Your task to perform on an android device: Open Google Image 0: 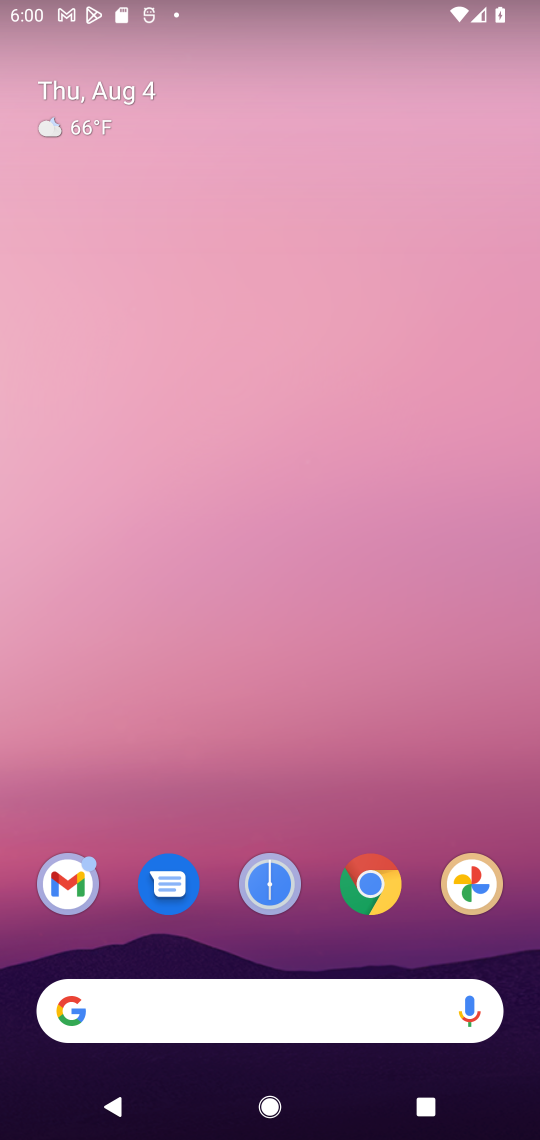
Step 0: click (369, 909)
Your task to perform on an android device: Open Google Image 1: 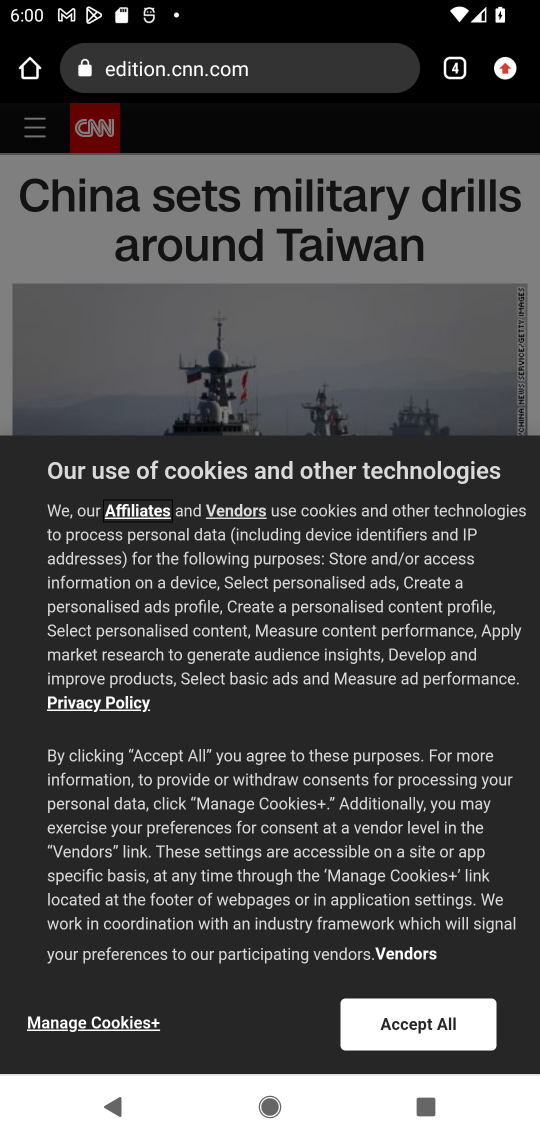
Step 1: click (278, 83)
Your task to perform on an android device: Open Google Image 2: 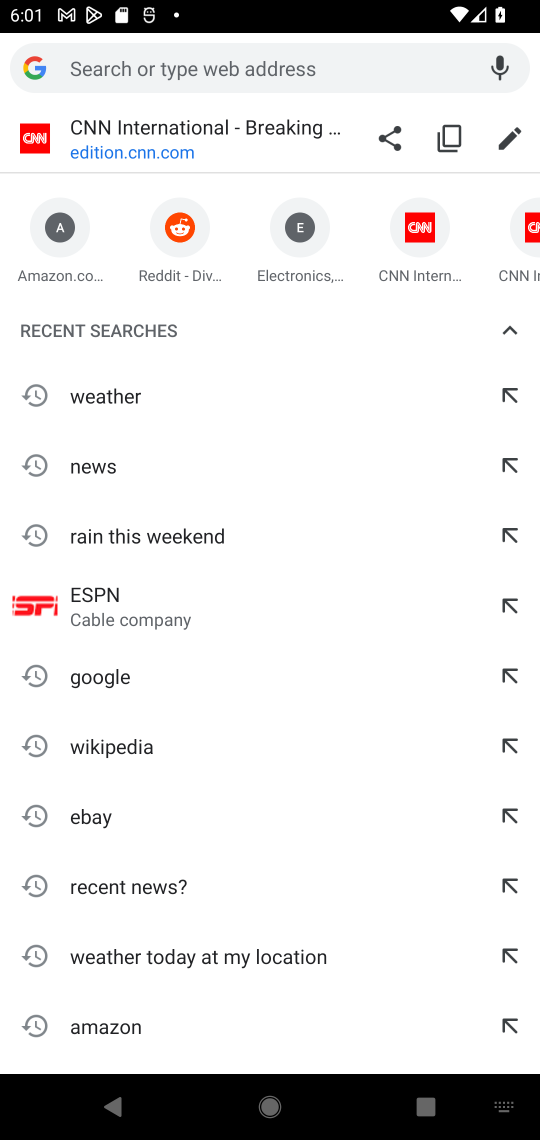
Step 2: task complete